Your task to perform on an android device: Show me recent news Image 0: 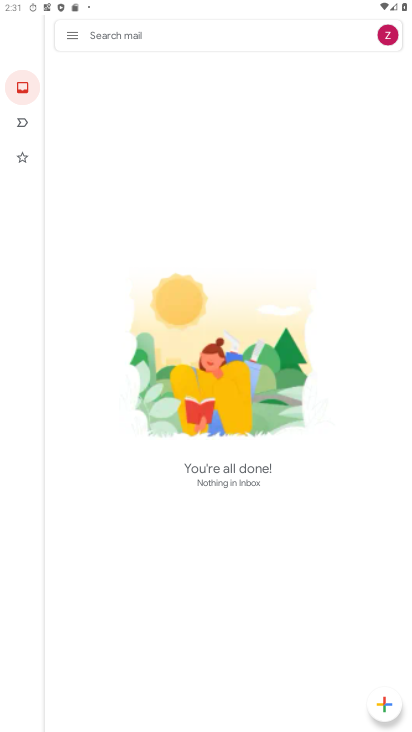
Step 0: press home button
Your task to perform on an android device: Show me recent news Image 1: 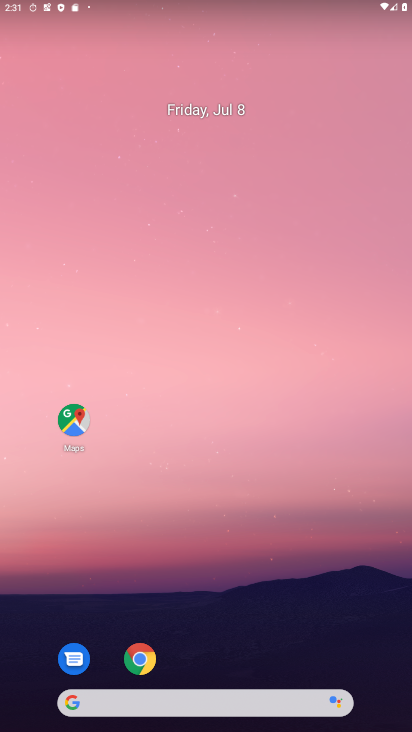
Step 1: click (222, 702)
Your task to perform on an android device: Show me recent news Image 2: 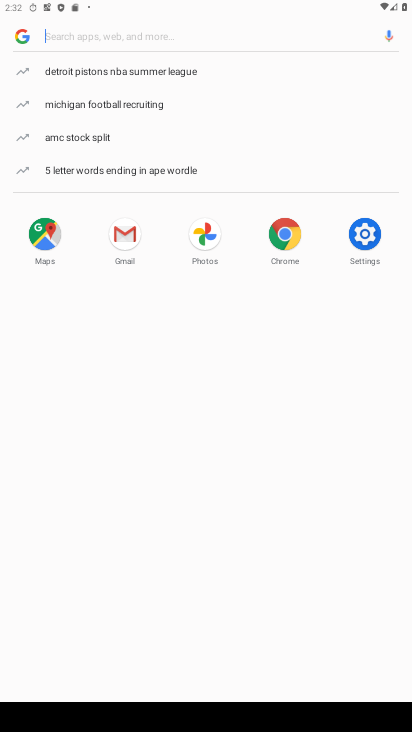
Step 2: type "show me recent news"
Your task to perform on an android device: Show me recent news Image 3: 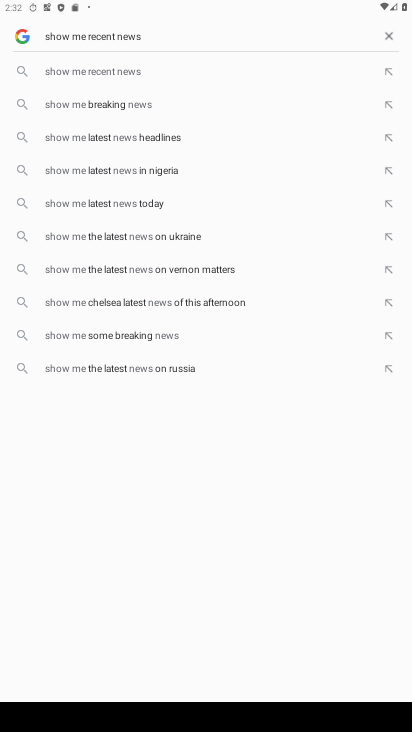
Step 3: click (103, 61)
Your task to perform on an android device: Show me recent news Image 4: 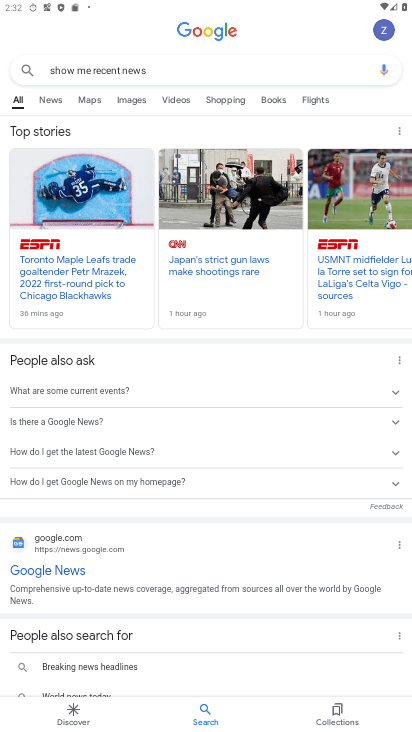
Step 4: click (54, 96)
Your task to perform on an android device: Show me recent news Image 5: 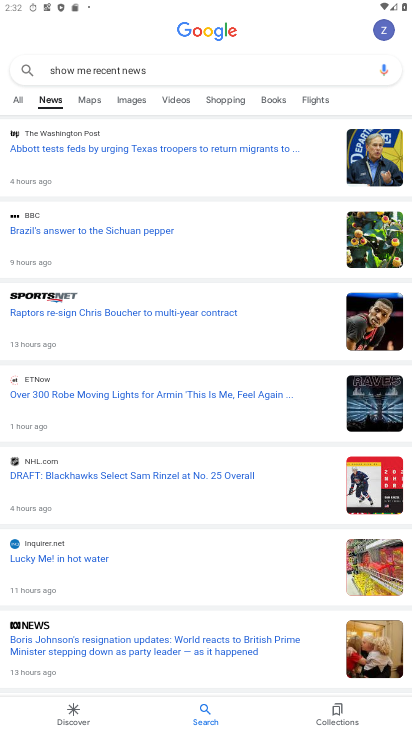
Step 5: task complete